Your task to perform on an android device: How do I get to the nearest Apple Store? Image 0: 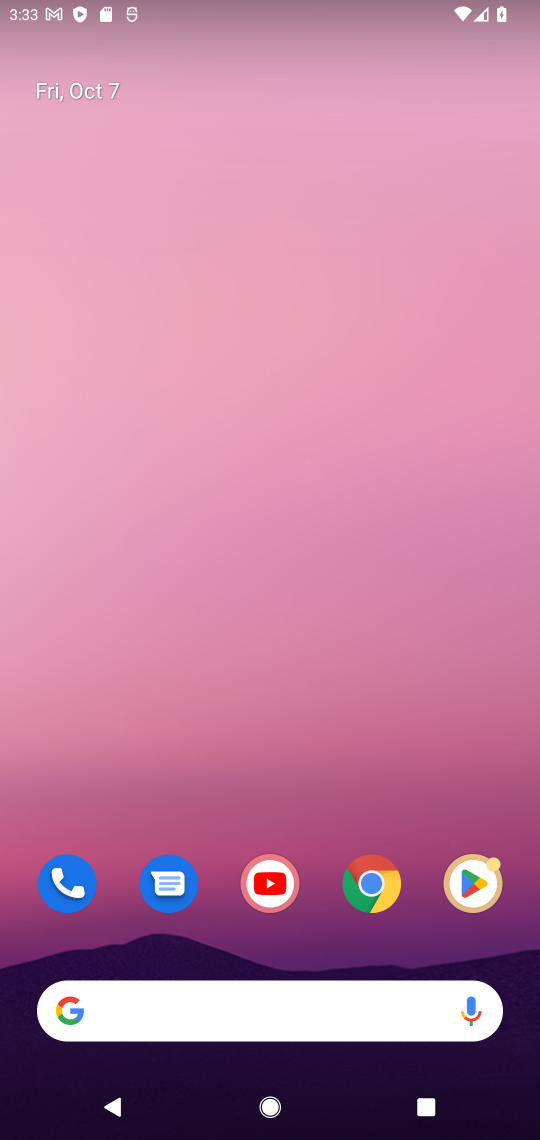
Step 0: click (376, 897)
Your task to perform on an android device: How do I get to the nearest Apple Store? Image 1: 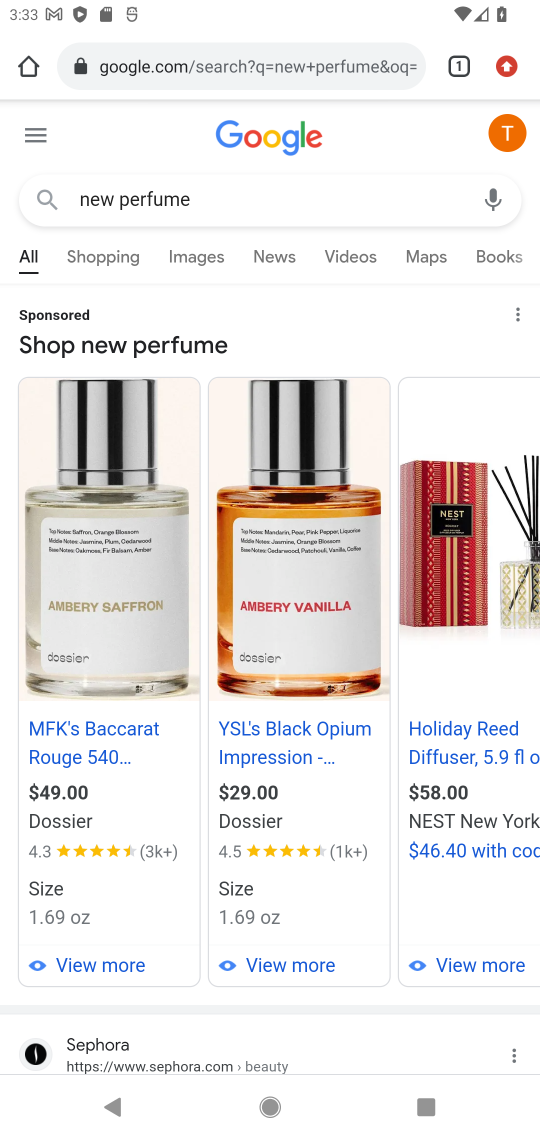
Step 1: click (229, 195)
Your task to perform on an android device: How do I get to the nearest Apple Store? Image 2: 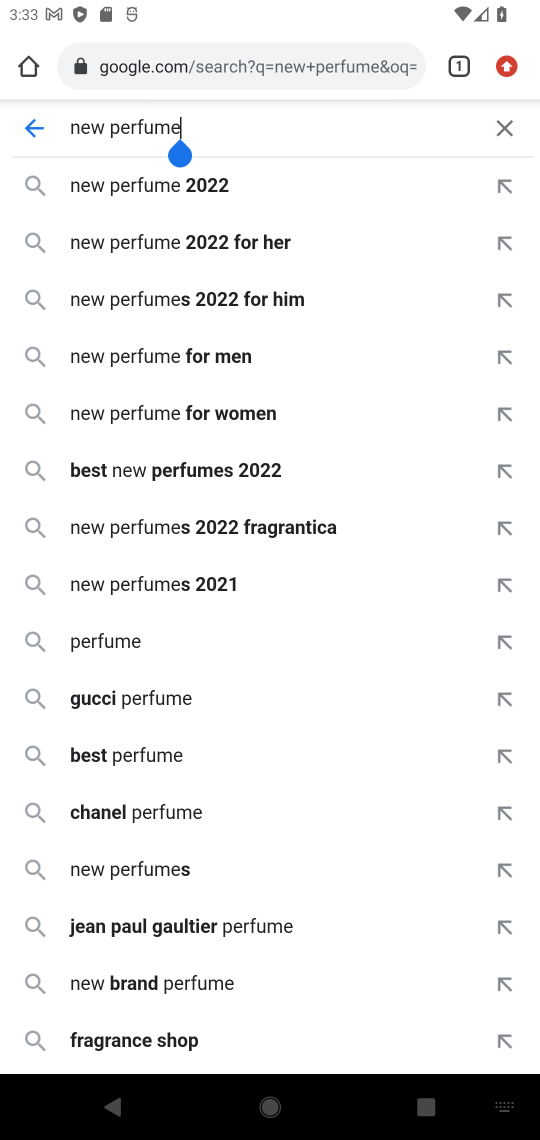
Step 2: click (497, 133)
Your task to perform on an android device: How do I get to the nearest Apple Store? Image 3: 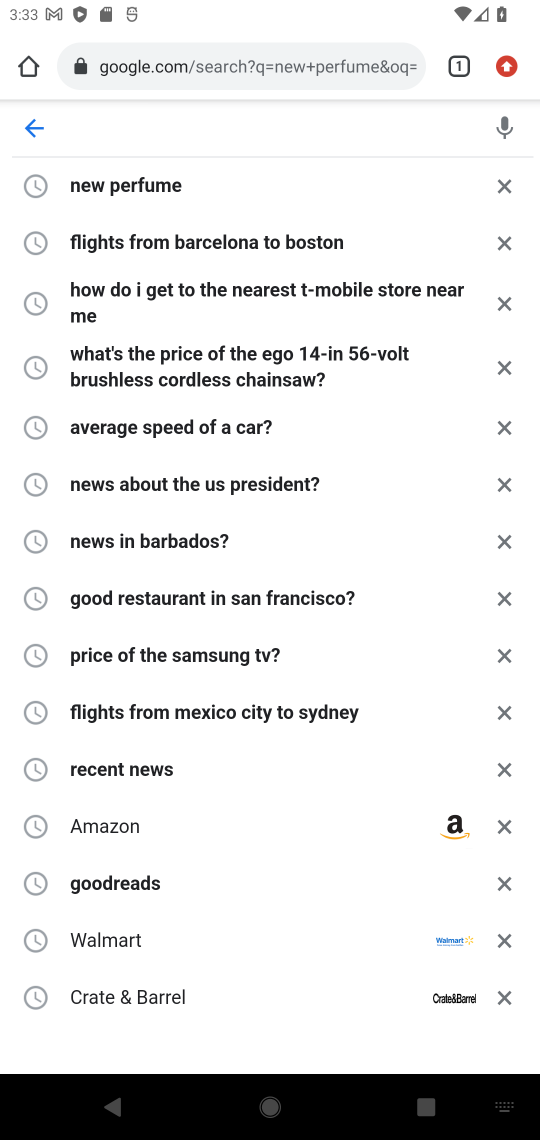
Step 3: type "How do I get to the nearest Apple Store?"
Your task to perform on an android device: How do I get to the nearest Apple Store? Image 4: 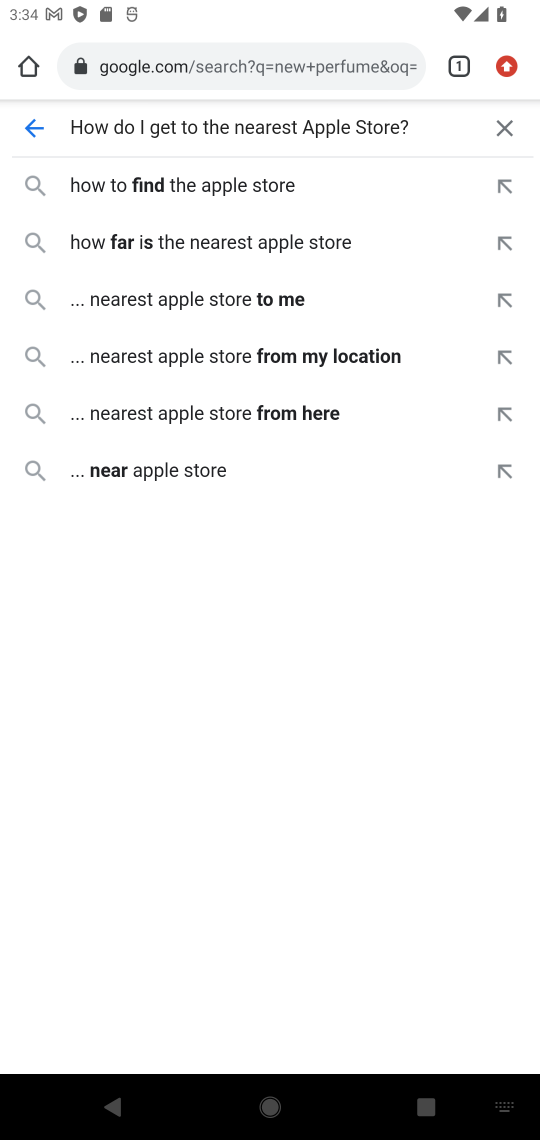
Step 4: press enter
Your task to perform on an android device: How do I get to the nearest Apple Store? Image 5: 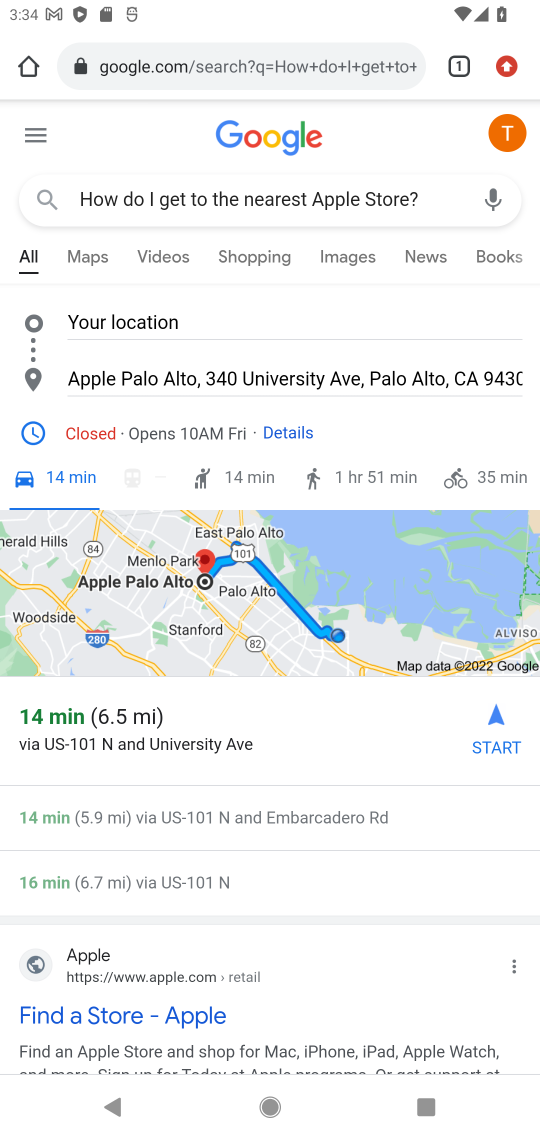
Step 5: task complete